Your task to perform on an android device: open the mobile data screen to see how much data has been used Image 0: 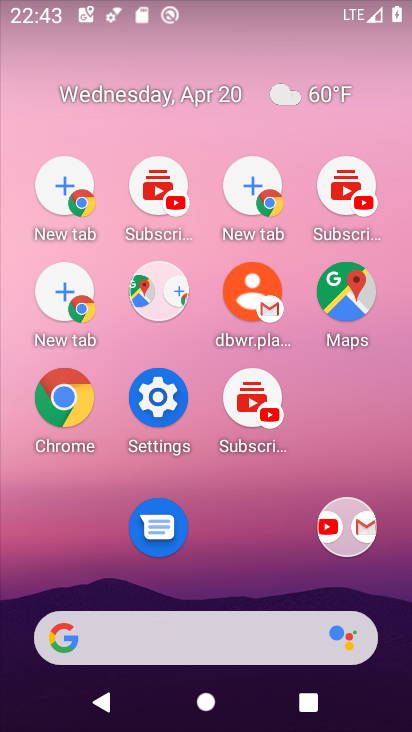
Step 0: drag from (358, 636) to (249, 91)
Your task to perform on an android device: open the mobile data screen to see how much data has been used Image 1: 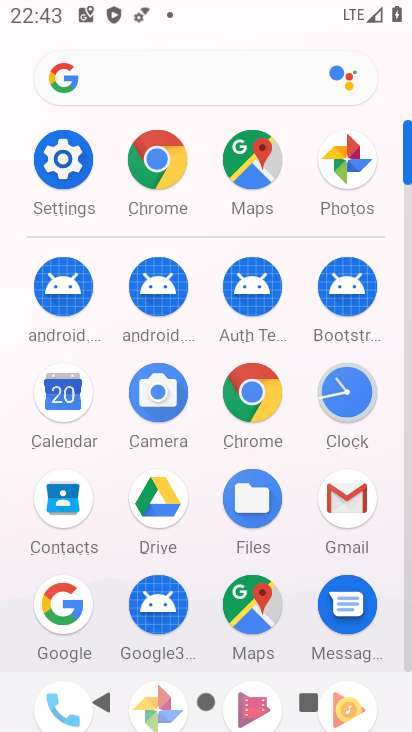
Step 1: click (71, 180)
Your task to perform on an android device: open the mobile data screen to see how much data has been used Image 2: 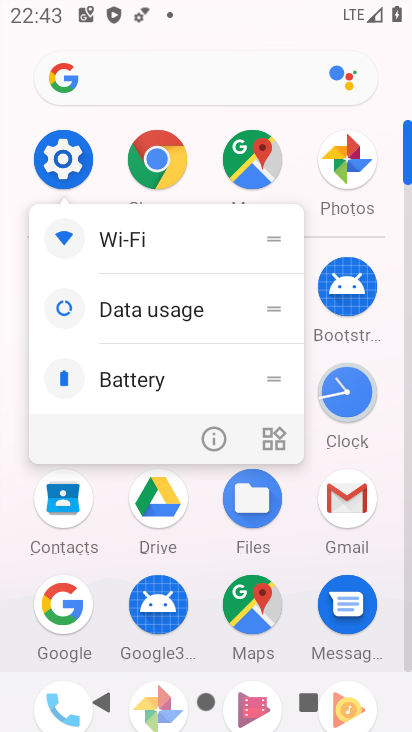
Step 2: click (83, 166)
Your task to perform on an android device: open the mobile data screen to see how much data has been used Image 3: 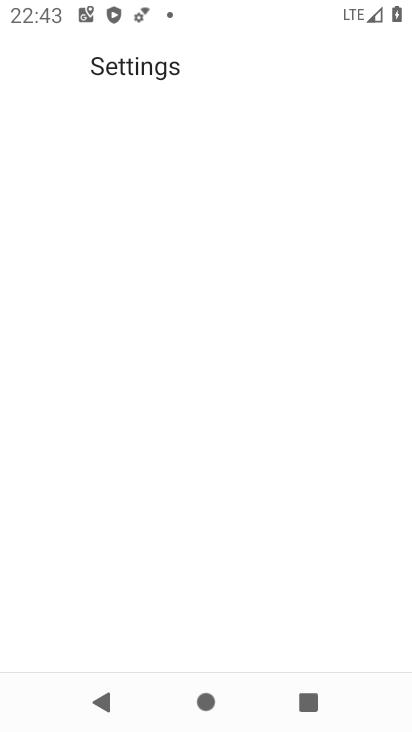
Step 3: click (106, 213)
Your task to perform on an android device: open the mobile data screen to see how much data has been used Image 4: 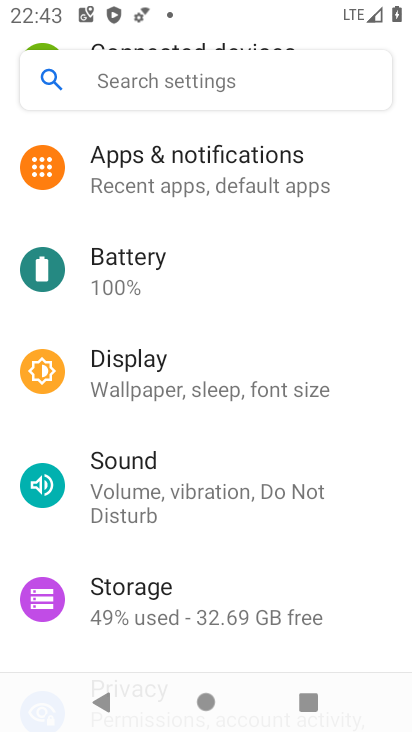
Step 4: drag from (174, 205) to (226, 515)
Your task to perform on an android device: open the mobile data screen to see how much data has been used Image 5: 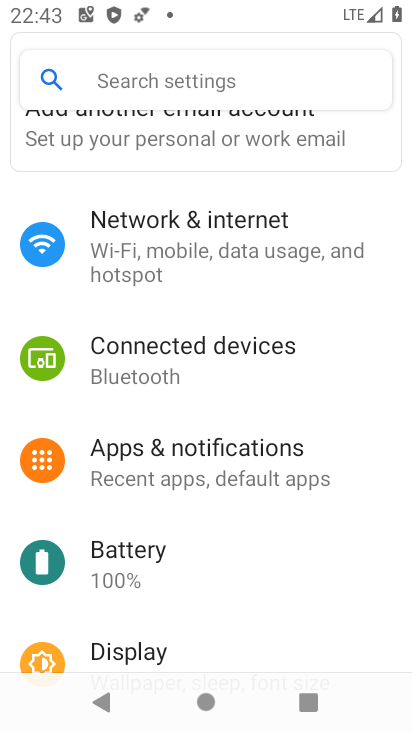
Step 5: click (172, 229)
Your task to perform on an android device: open the mobile data screen to see how much data has been used Image 6: 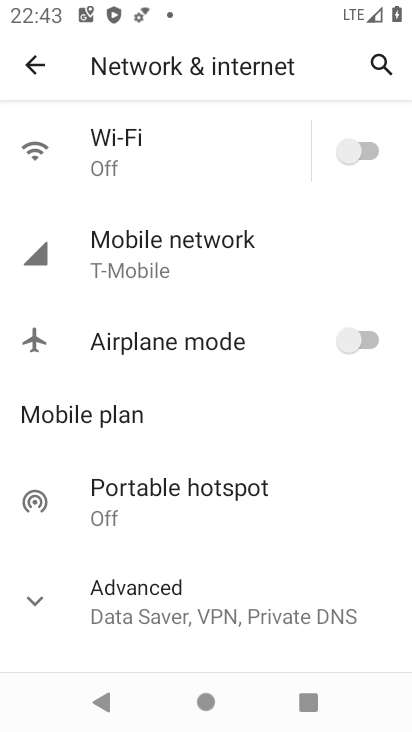
Step 6: drag from (215, 562) to (137, 220)
Your task to perform on an android device: open the mobile data screen to see how much data has been used Image 7: 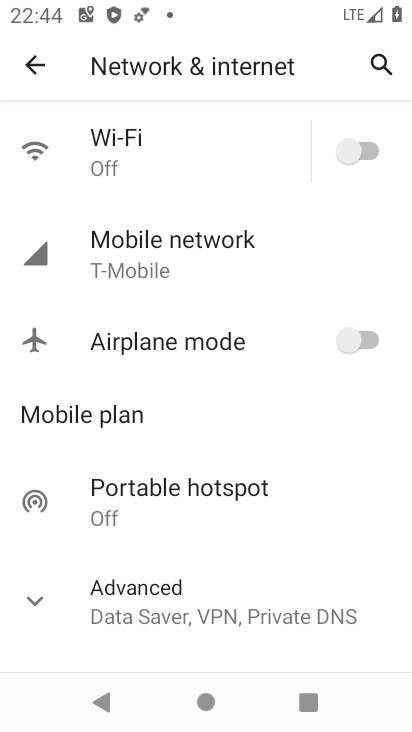
Step 7: drag from (181, 183) to (235, 550)
Your task to perform on an android device: open the mobile data screen to see how much data has been used Image 8: 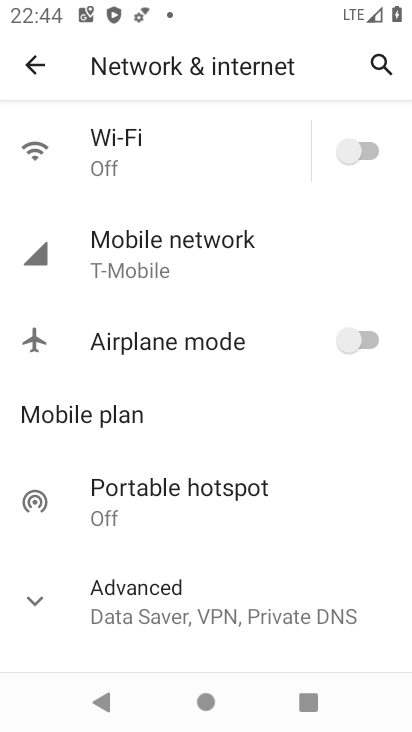
Step 8: click (34, 63)
Your task to perform on an android device: open the mobile data screen to see how much data has been used Image 9: 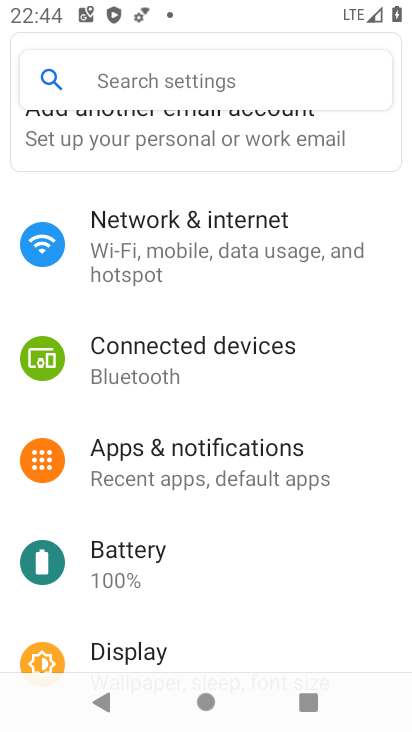
Step 9: drag from (180, 580) to (135, 319)
Your task to perform on an android device: open the mobile data screen to see how much data has been used Image 10: 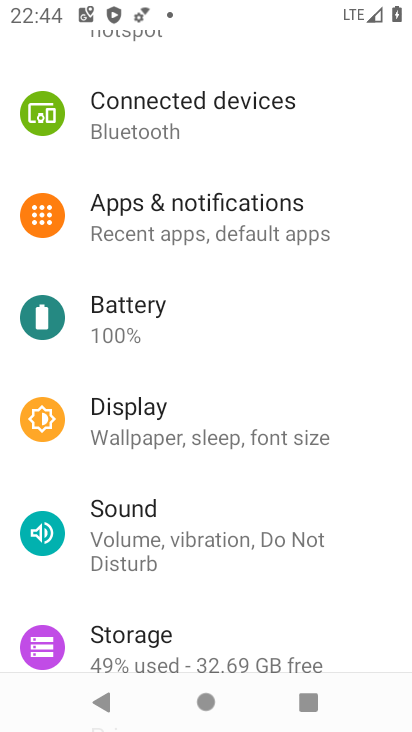
Step 10: drag from (205, 527) to (167, 97)
Your task to perform on an android device: open the mobile data screen to see how much data has been used Image 11: 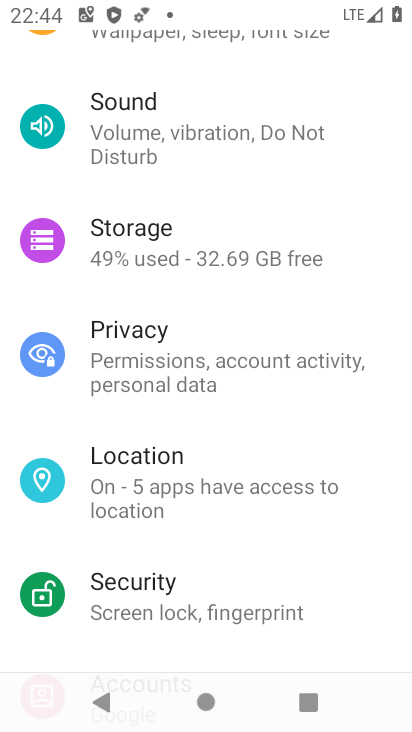
Step 11: click (179, 114)
Your task to perform on an android device: open the mobile data screen to see how much data has been used Image 12: 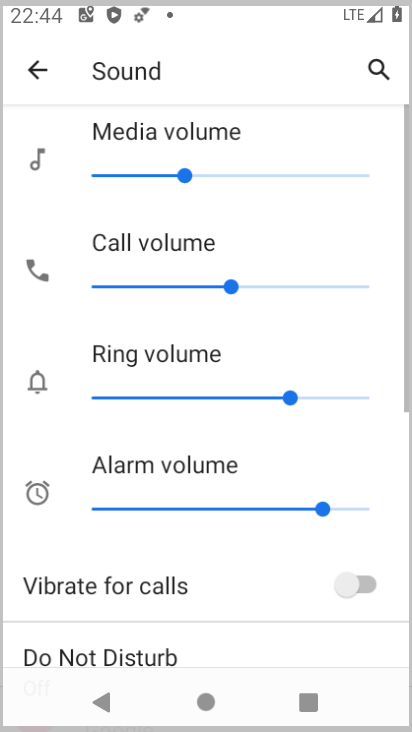
Step 12: click (235, 204)
Your task to perform on an android device: open the mobile data screen to see how much data has been used Image 13: 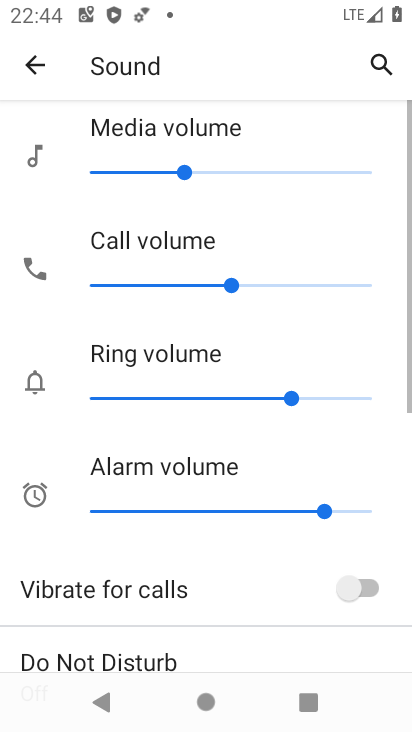
Step 13: click (183, 167)
Your task to perform on an android device: open the mobile data screen to see how much data has been used Image 14: 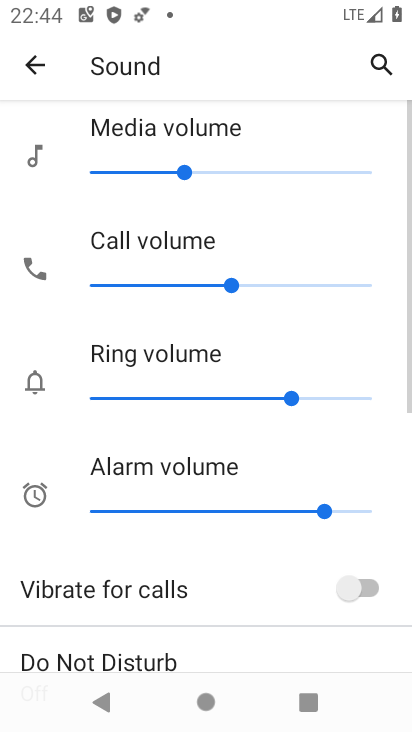
Step 14: drag from (199, 200) to (140, 126)
Your task to perform on an android device: open the mobile data screen to see how much data has been used Image 15: 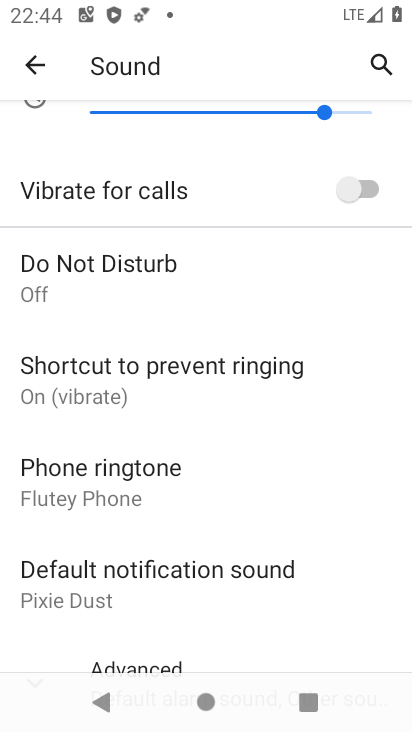
Step 15: click (33, 57)
Your task to perform on an android device: open the mobile data screen to see how much data has been used Image 16: 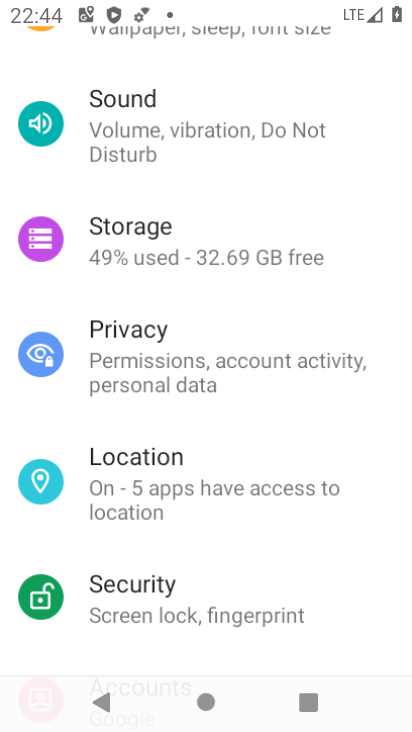
Step 16: click (35, 61)
Your task to perform on an android device: open the mobile data screen to see how much data has been used Image 17: 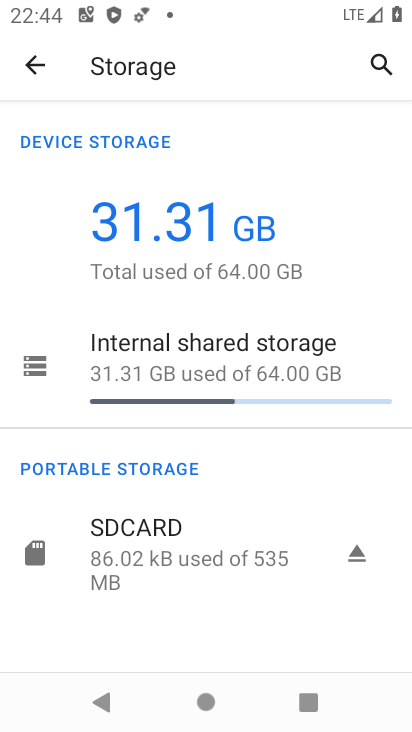
Step 17: click (27, 58)
Your task to perform on an android device: open the mobile data screen to see how much data has been used Image 18: 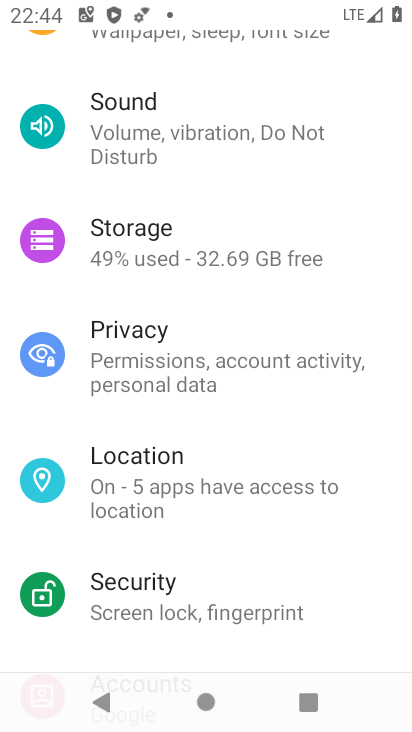
Step 18: click (28, 66)
Your task to perform on an android device: open the mobile data screen to see how much data has been used Image 19: 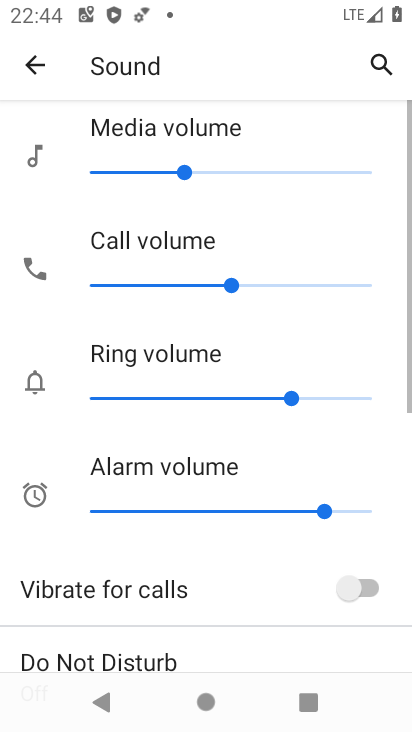
Step 19: click (35, 67)
Your task to perform on an android device: open the mobile data screen to see how much data has been used Image 20: 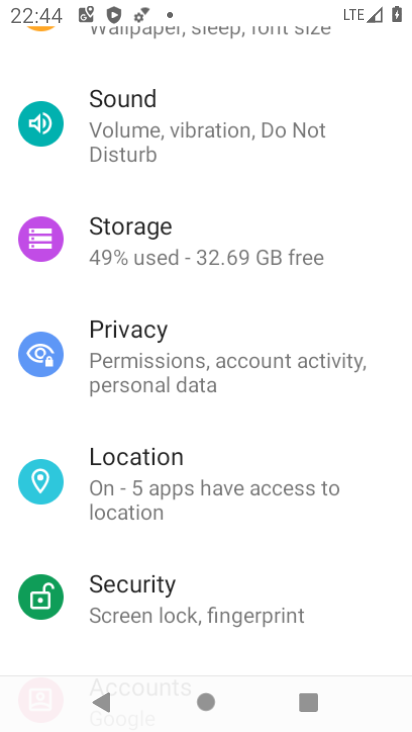
Step 20: task complete